Your task to perform on an android device: open chrome and create a bookmark for the current page Image 0: 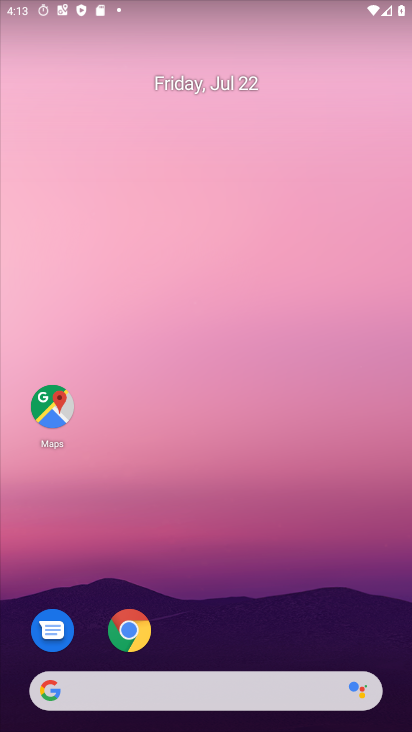
Step 0: drag from (135, 474) to (99, 19)
Your task to perform on an android device: open chrome and create a bookmark for the current page Image 1: 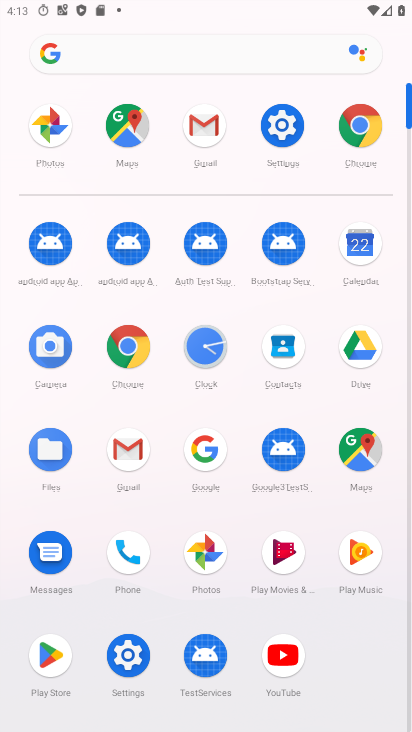
Step 1: click (117, 345)
Your task to perform on an android device: open chrome and create a bookmark for the current page Image 2: 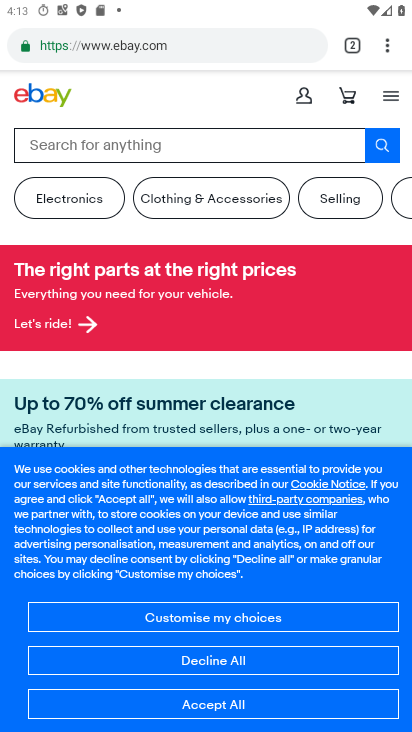
Step 2: task complete